Your task to perform on an android device: refresh tabs in the chrome app Image 0: 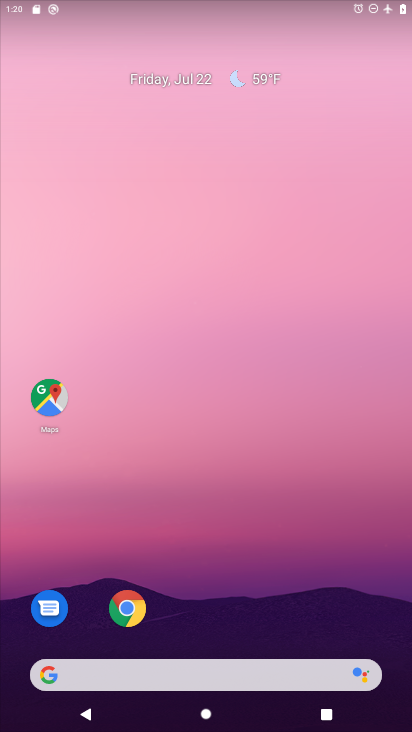
Step 0: drag from (377, 619) to (147, 0)
Your task to perform on an android device: refresh tabs in the chrome app Image 1: 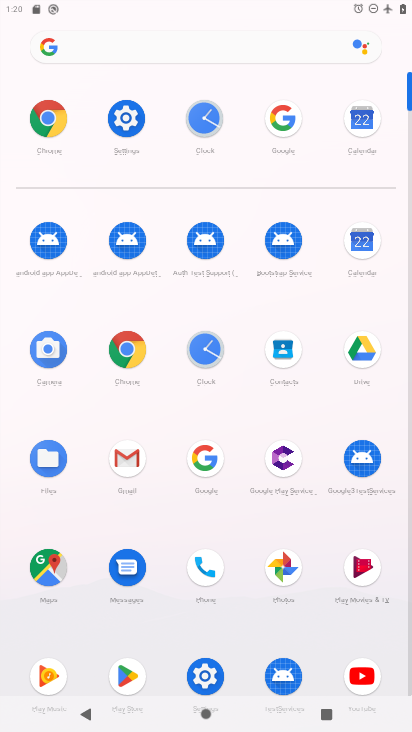
Step 1: click (129, 321)
Your task to perform on an android device: refresh tabs in the chrome app Image 2: 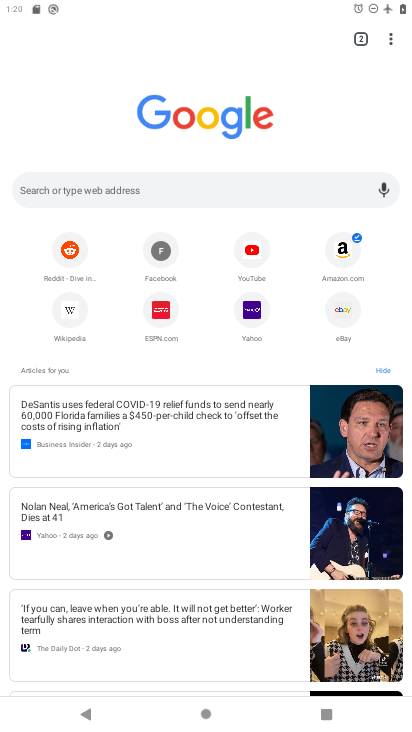
Step 2: click (384, 35)
Your task to perform on an android device: refresh tabs in the chrome app Image 3: 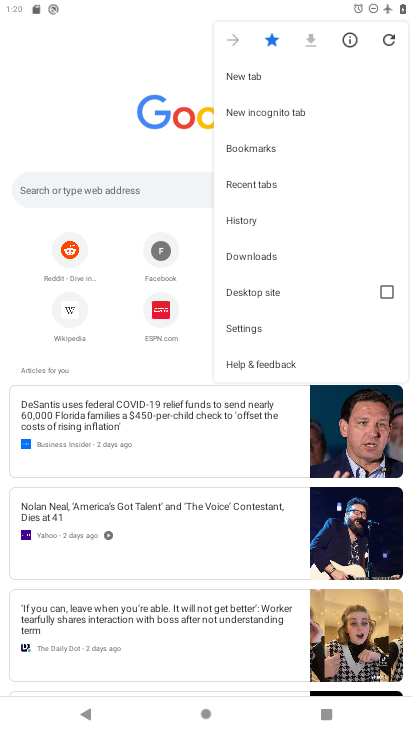
Step 3: click (390, 38)
Your task to perform on an android device: refresh tabs in the chrome app Image 4: 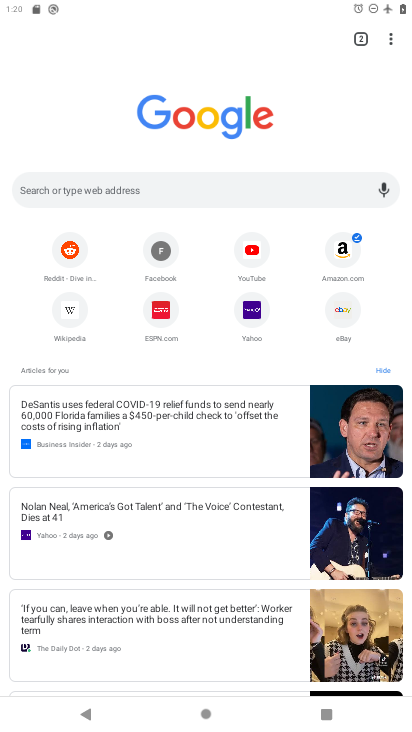
Step 4: task complete